Your task to perform on an android device: change the clock style Image 0: 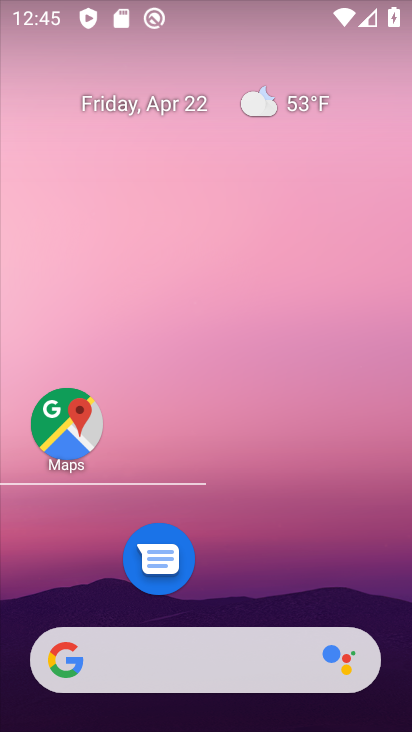
Step 0: drag from (213, 460) to (211, 118)
Your task to perform on an android device: change the clock style Image 1: 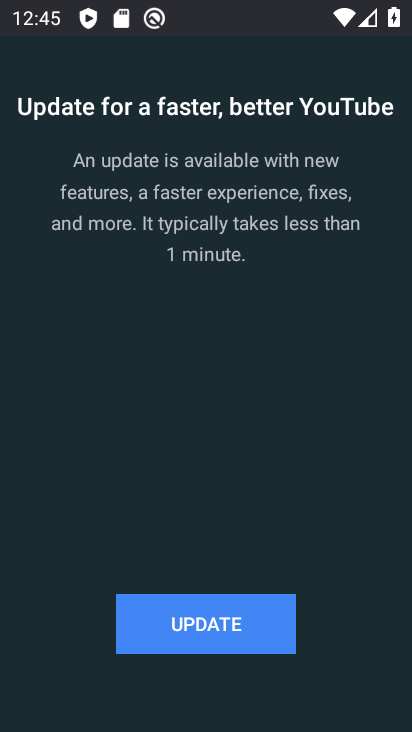
Step 1: press home button
Your task to perform on an android device: change the clock style Image 2: 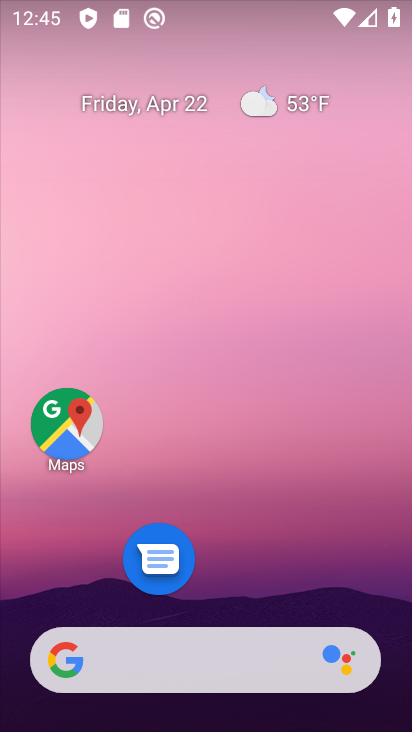
Step 2: drag from (197, 721) to (195, 157)
Your task to perform on an android device: change the clock style Image 3: 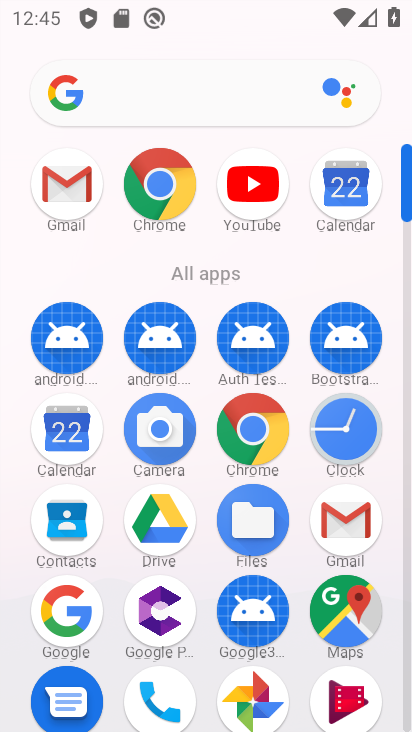
Step 3: click (338, 426)
Your task to perform on an android device: change the clock style Image 4: 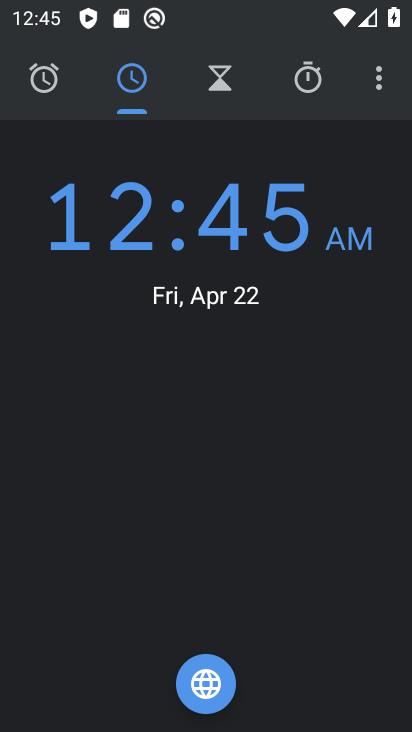
Step 4: click (379, 77)
Your task to perform on an android device: change the clock style Image 5: 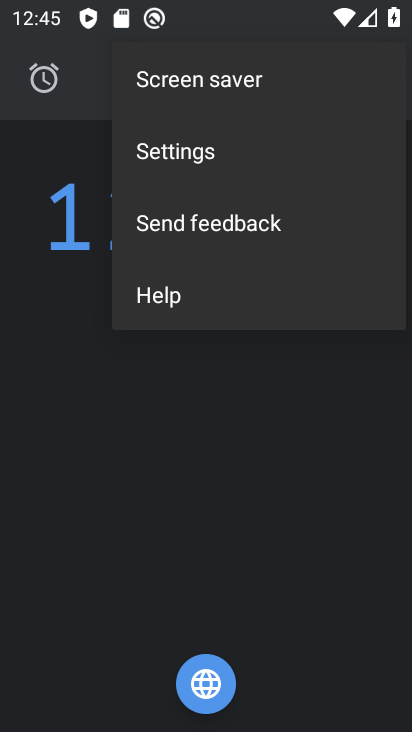
Step 5: click (163, 140)
Your task to perform on an android device: change the clock style Image 6: 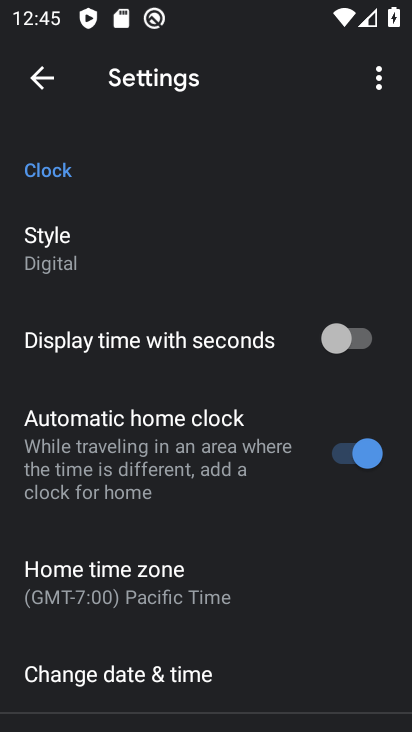
Step 6: click (57, 252)
Your task to perform on an android device: change the clock style Image 7: 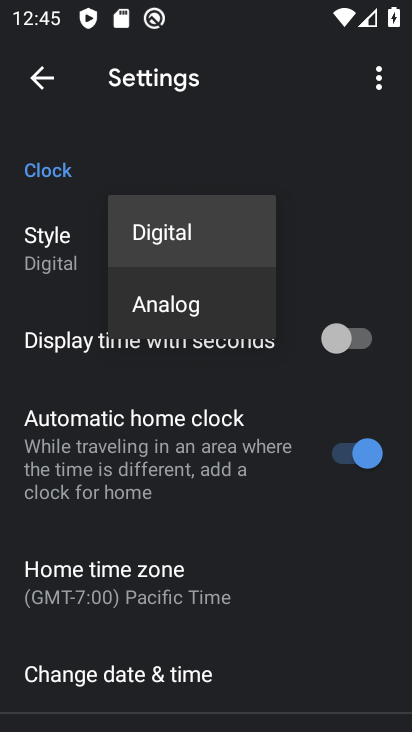
Step 7: click (155, 302)
Your task to perform on an android device: change the clock style Image 8: 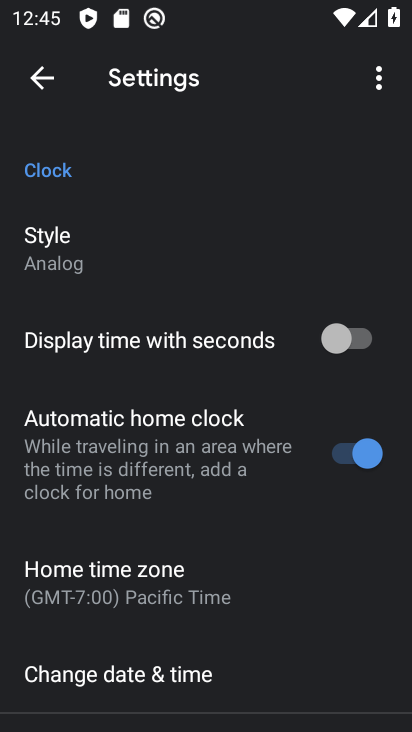
Step 8: task complete